Your task to perform on an android device: Open location settings Image 0: 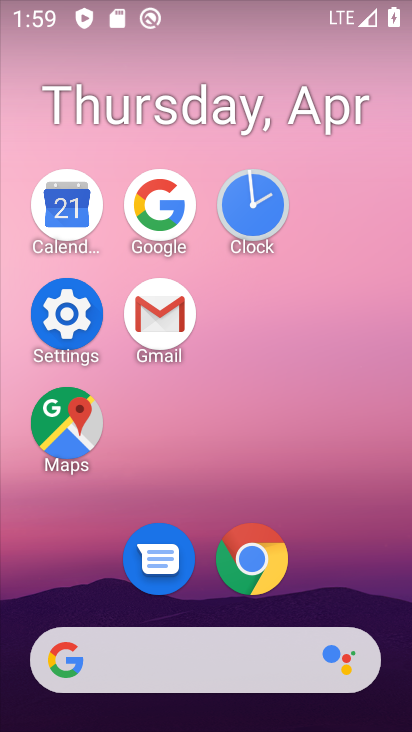
Step 0: click (77, 323)
Your task to perform on an android device: Open location settings Image 1: 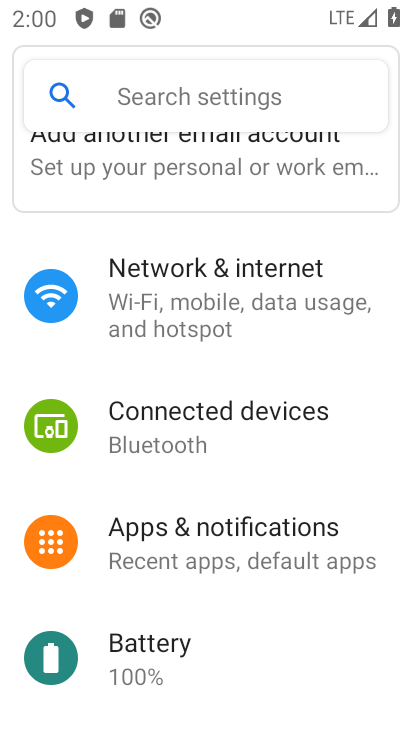
Step 1: drag from (278, 610) to (296, 82)
Your task to perform on an android device: Open location settings Image 2: 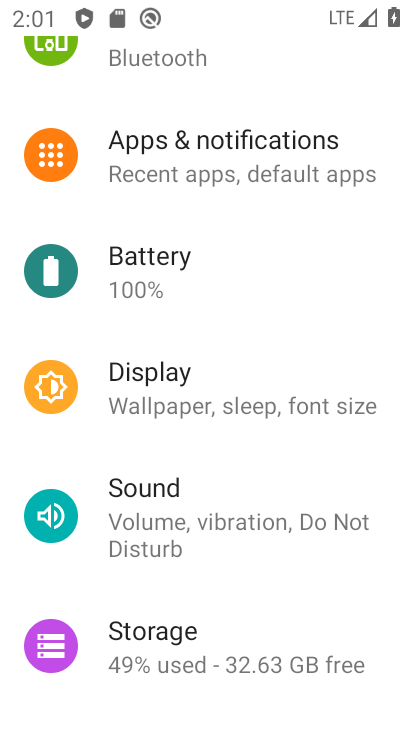
Step 2: drag from (234, 586) to (307, 151)
Your task to perform on an android device: Open location settings Image 3: 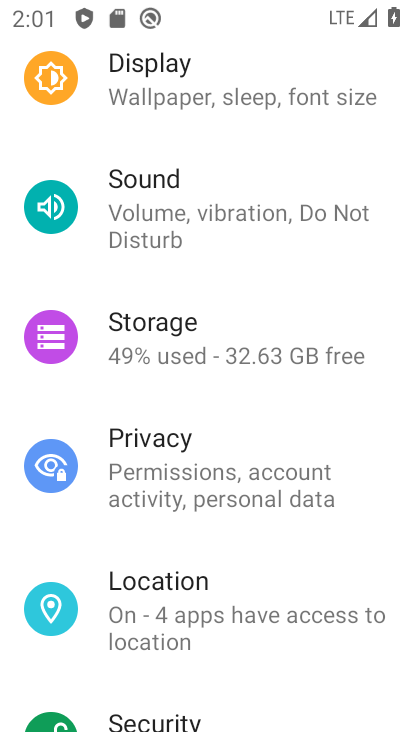
Step 3: click (180, 617)
Your task to perform on an android device: Open location settings Image 4: 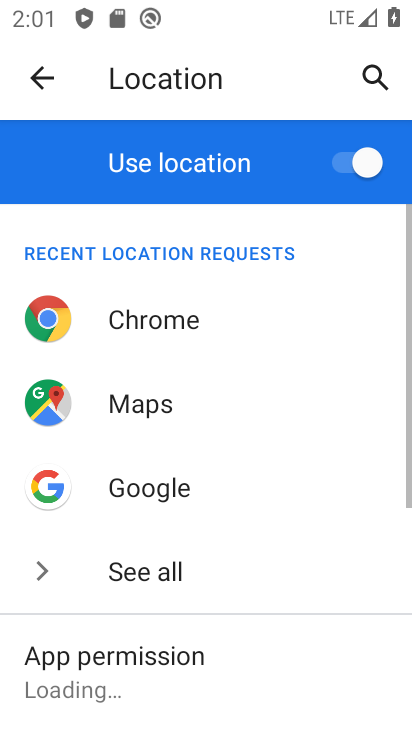
Step 4: task complete